Your task to perform on an android device: set the timer Image 0: 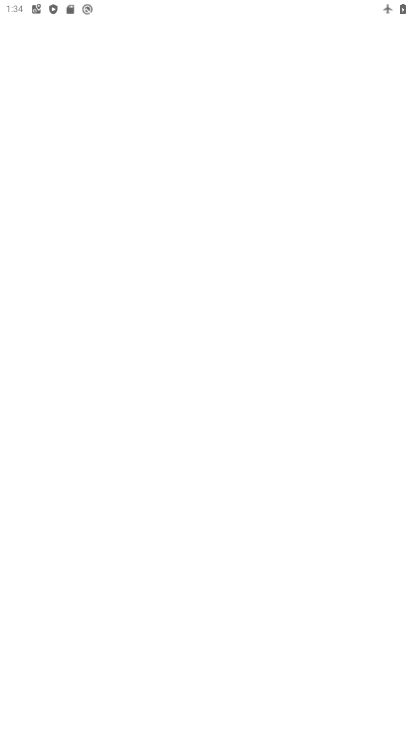
Step 0: drag from (340, 618) to (307, 110)
Your task to perform on an android device: set the timer Image 1: 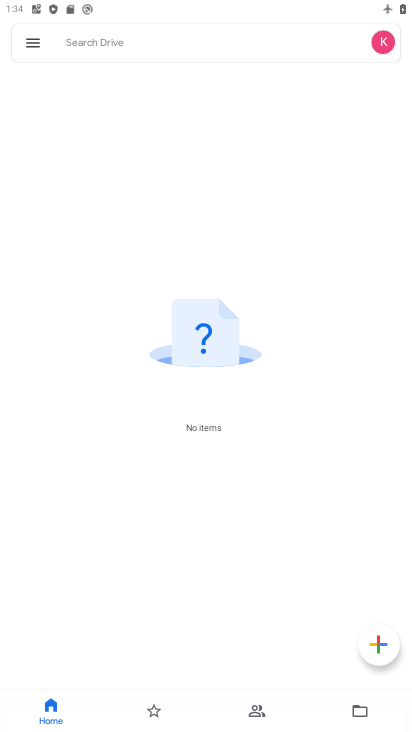
Step 1: press home button
Your task to perform on an android device: set the timer Image 2: 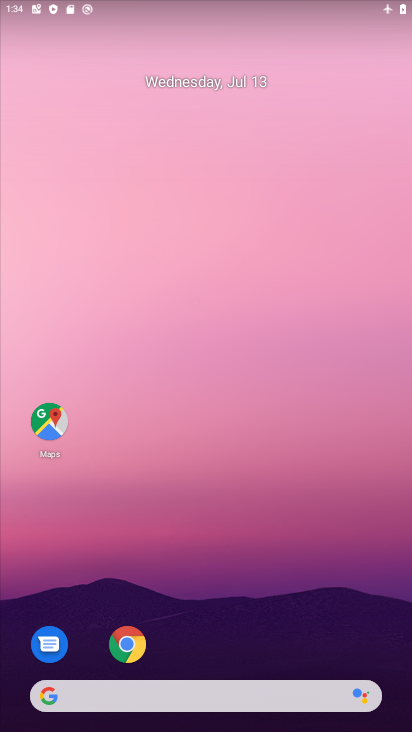
Step 2: drag from (260, 584) to (266, 73)
Your task to perform on an android device: set the timer Image 3: 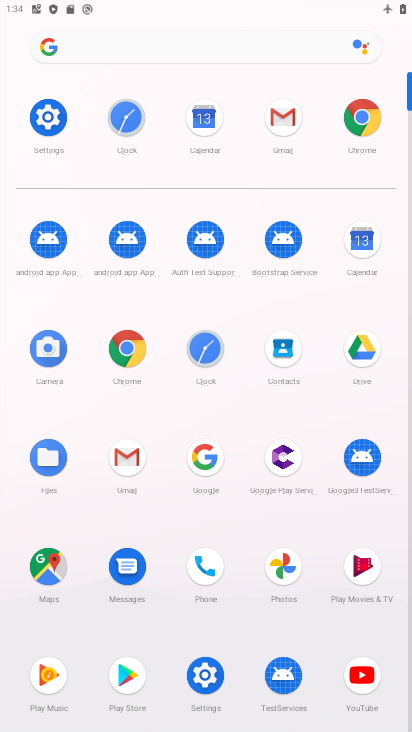
Step 3: click (204, 348)
Your task to perform on an android device: set the timer Image 4: 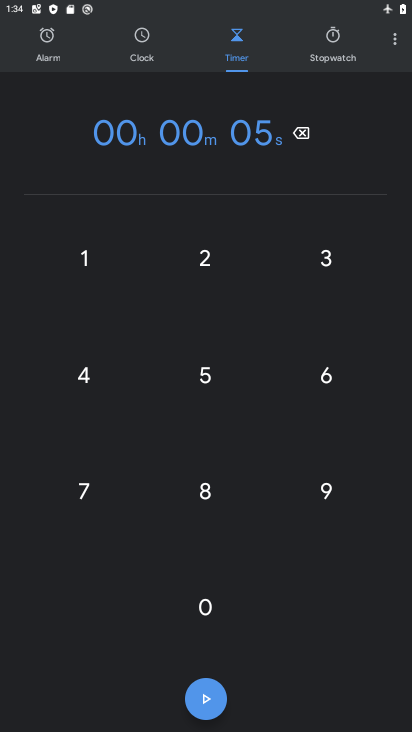
Step 4: task complete